Your task to perform on an android device: check battery use Image 0: 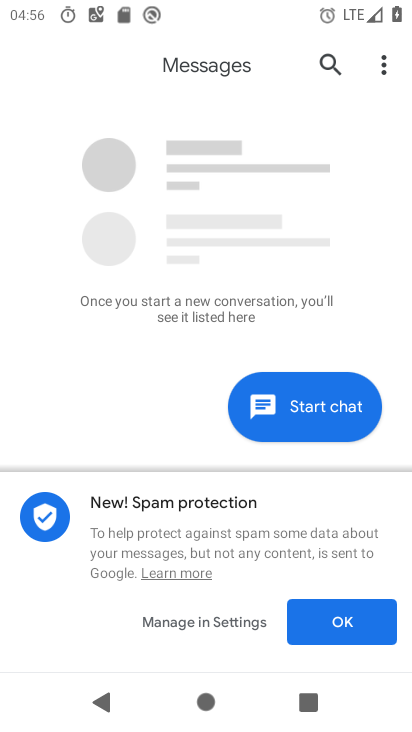
Step 0: press back button
Your task to perform on an android device: check battery use Image 1: 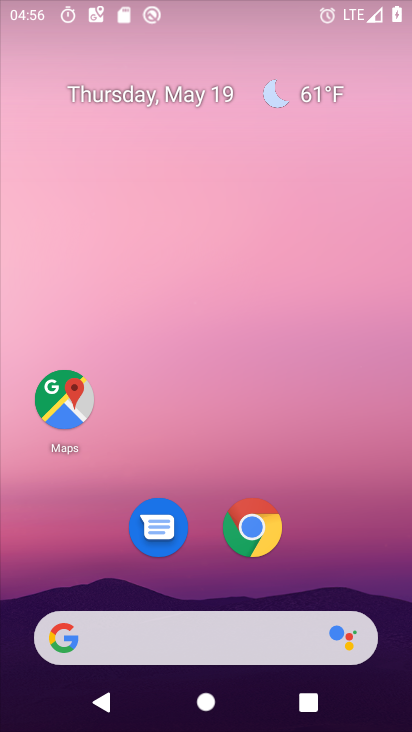
Step 1: drag from (224, 577) to (305, 42)
Your task to perform on an android device: check battery use Image 2: 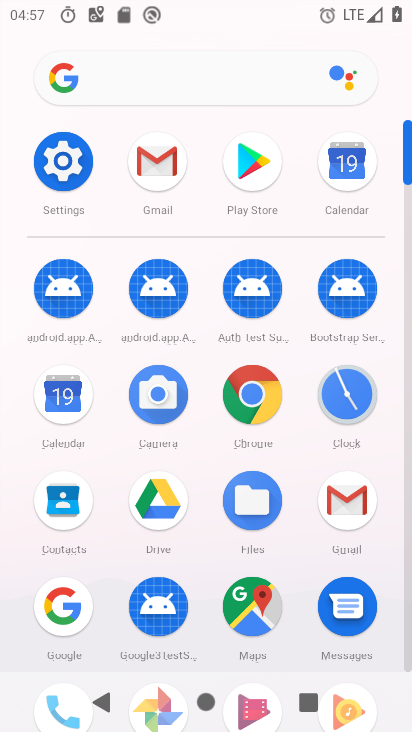
Step 2: click (45, 161)
Your task to perform on an android device: check battery use Image 3: 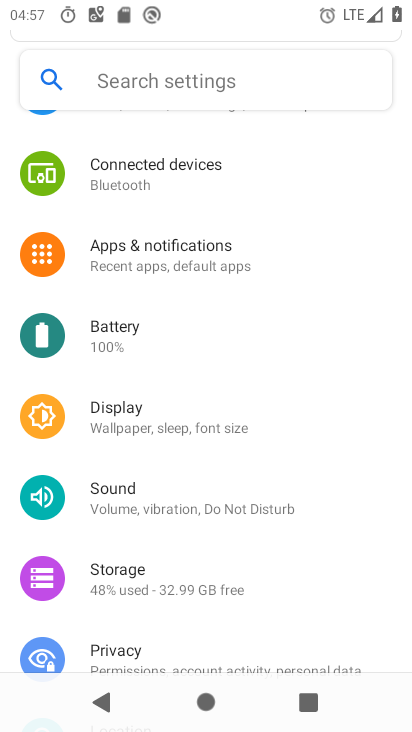
Step 3: click (144, 320)
Your task to perform on an android device: check battery use Image 4: 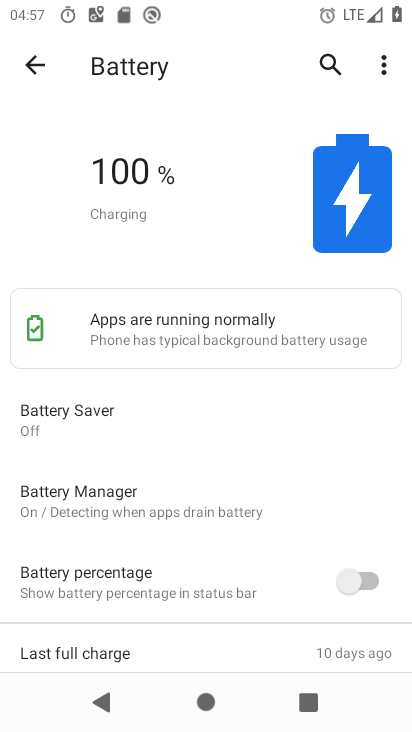
Step 4: click (386, 64)
Your task to perform on an android device: check battery use Image 5: 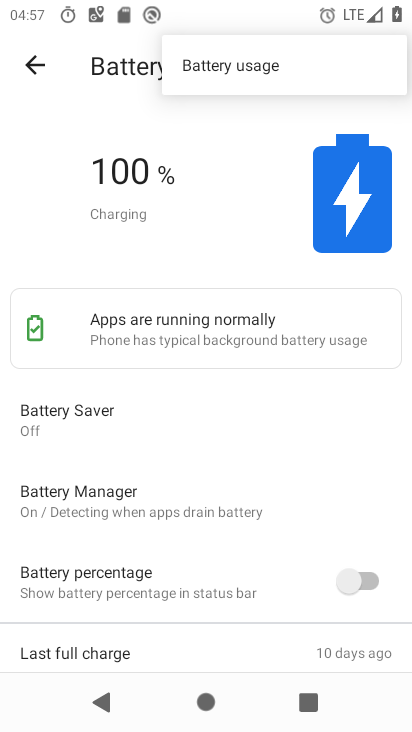
Step 5: click (278, 79)
Your task to perform on an android device: check battery use Image 6: 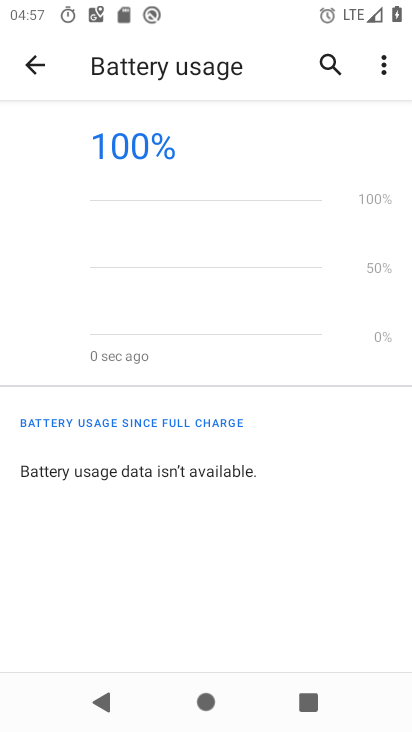
Step 6: task complete